Your task to perform on an android device: Check the weather Image 0: 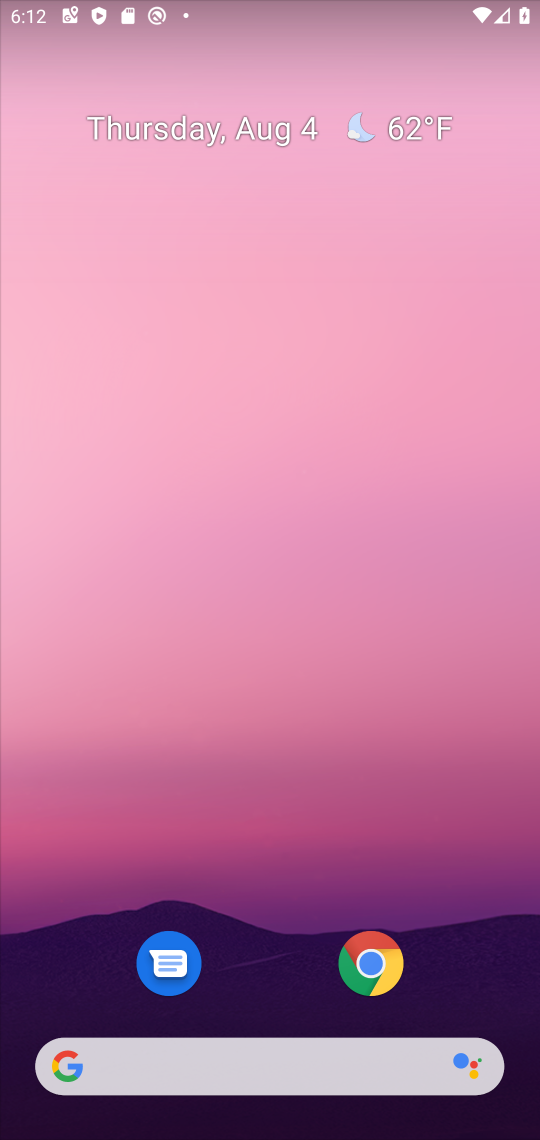
Step 0: click (253, 1066)
Your task to perform on an android device: Check the weather Image 1: 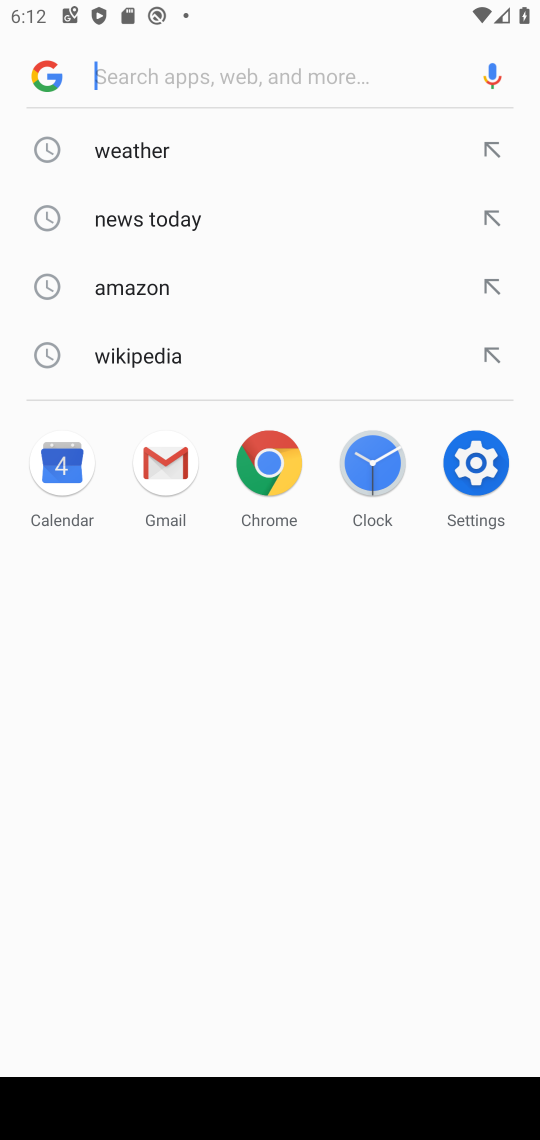
Step 1: click (129, 146)
Your task to perform on an android device: Check the weather Image 2: 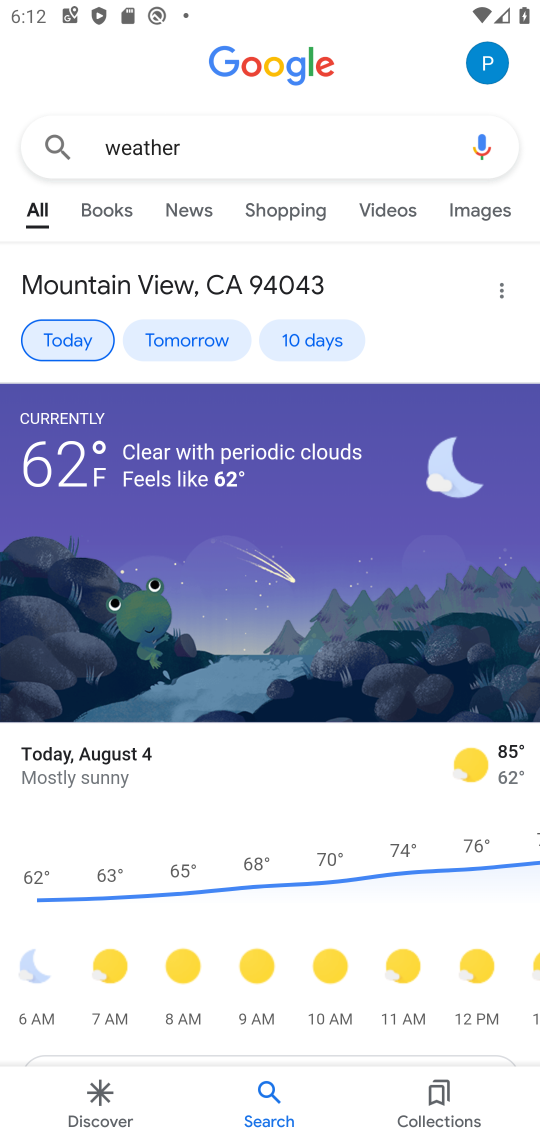
Step 2: task complete